Your task to perform on an android device: What's on my calendar today? Image 0: 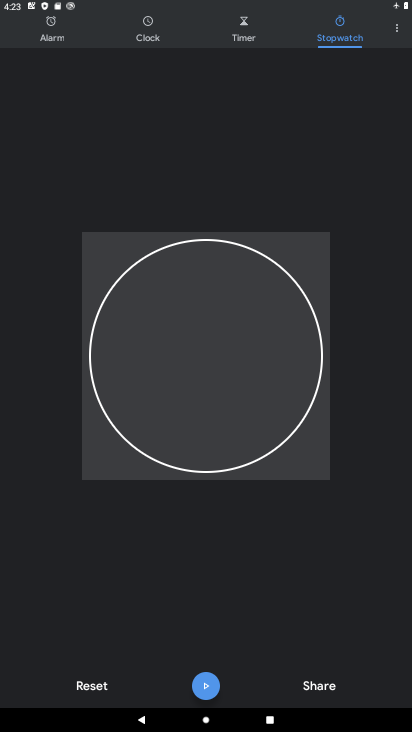
Step 0: press home button
Your task to perform on an android device: What's on my calendar today? Image 1: 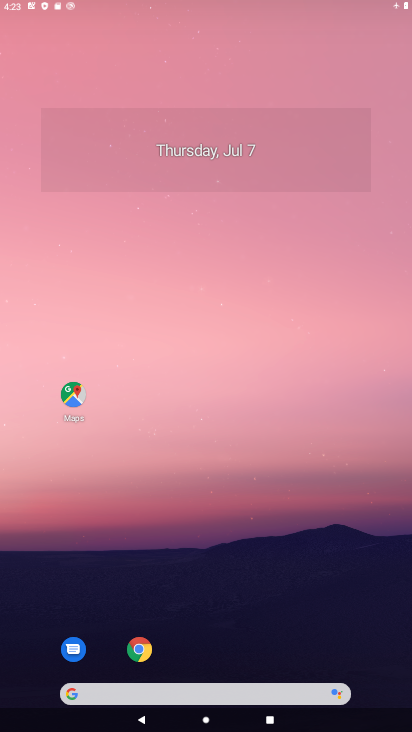
Step 1: drag from (0, 0) to (292, 0)
Your task to perform on an android device: What's on my calendar today? Image 2: 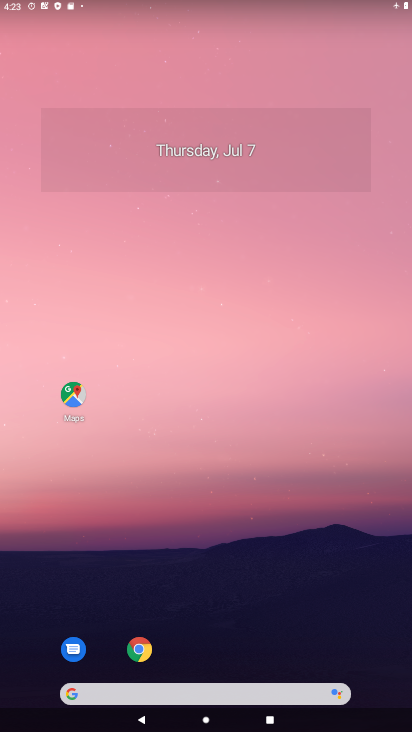
Step 2: drag from (369, 680) to (186, 37)
Your task to perform on an android device: What's on my calendar today? Image 3: 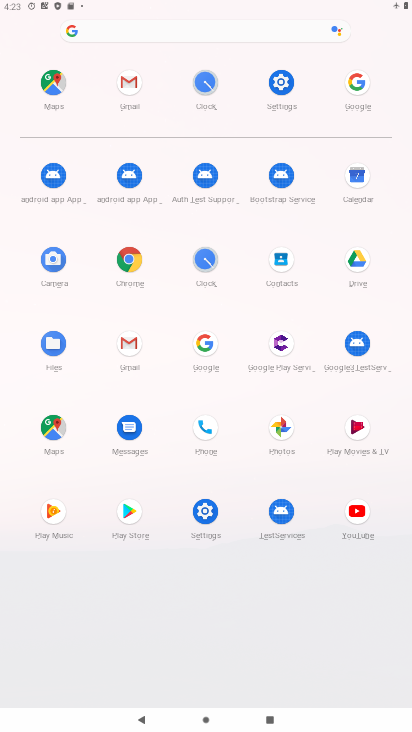
Step 3: drag from (361, 690) to (352, 307)
Your task to perform on an android device: What's on my calendar today? Image 4: 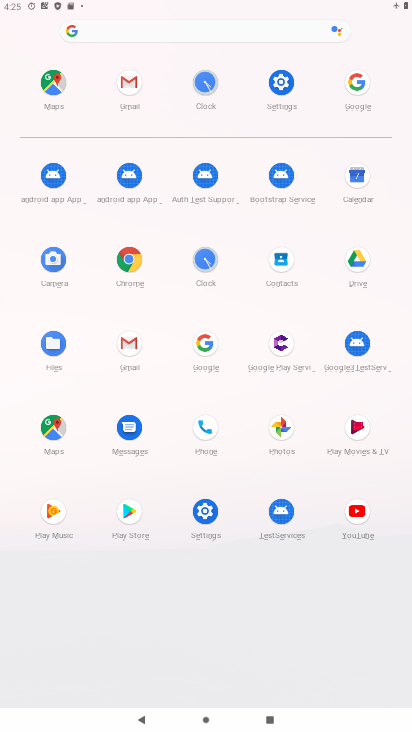
Step 4: click (351, 185)
Your task to perform on an android device: What's on my calendar today? Image 5: 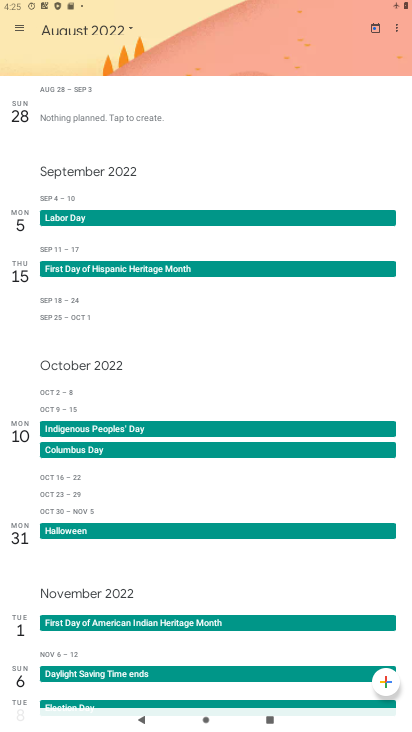
Step 5: task complete